Your task to perform on an android device: delete a single message in the gmail app Image 0: 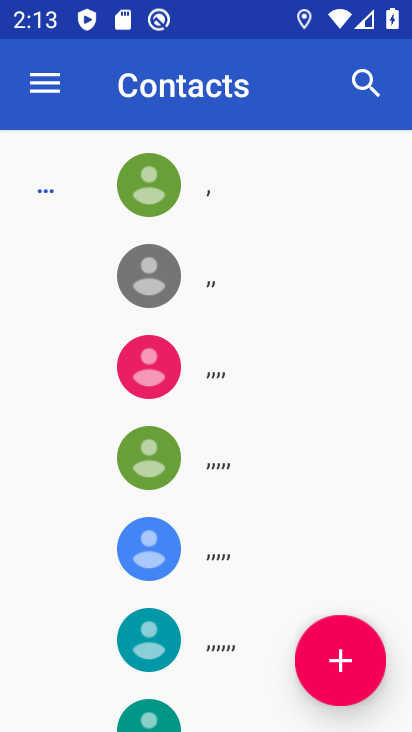
Step 0: press home button
Your task to perform on an android device: delete a single message in the gmail app Image 1: 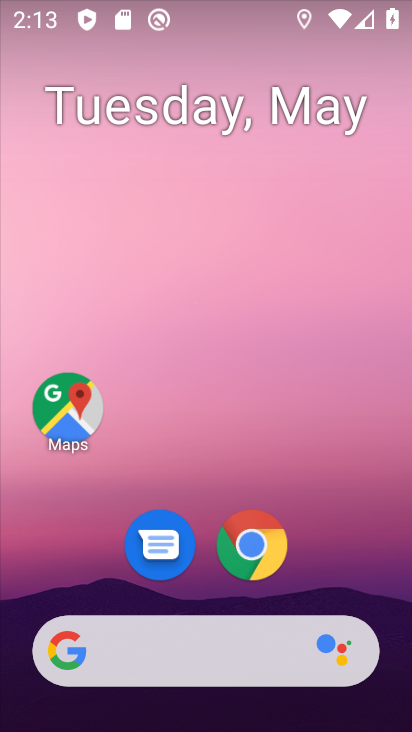
Step 1: drag from (205, 604) to (294, 77)
Your task to perform on an android device: delete a single message in the gmail app Image 2: 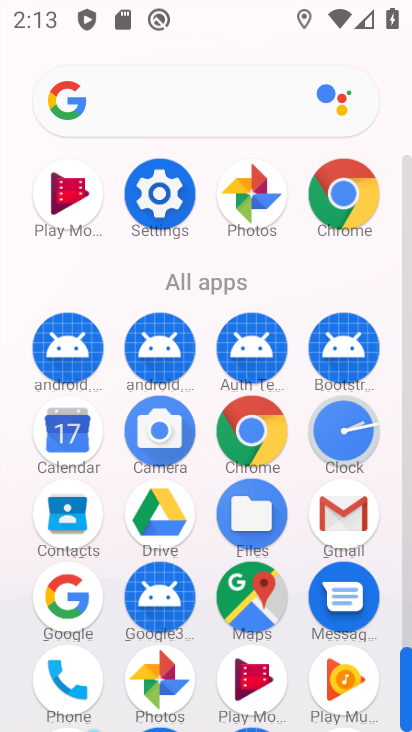
Step 2: click (335, 501)
Your task to perform on an android device: delete a single message in the gmail app Image 3: 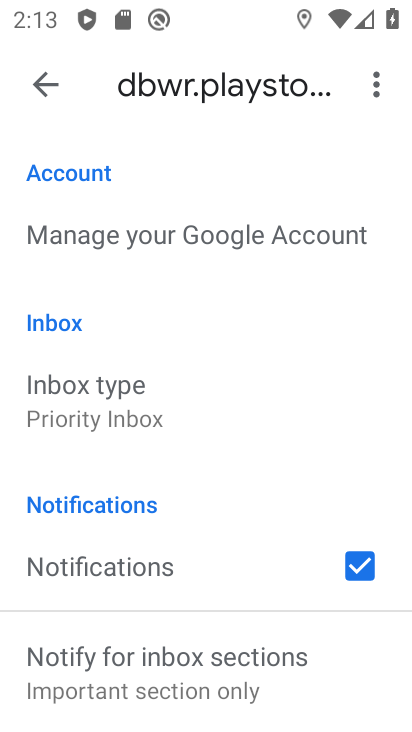
Step 3: click (41, 79)
Your task to perform on an android device: delete a single message in the gmail app Image 4: 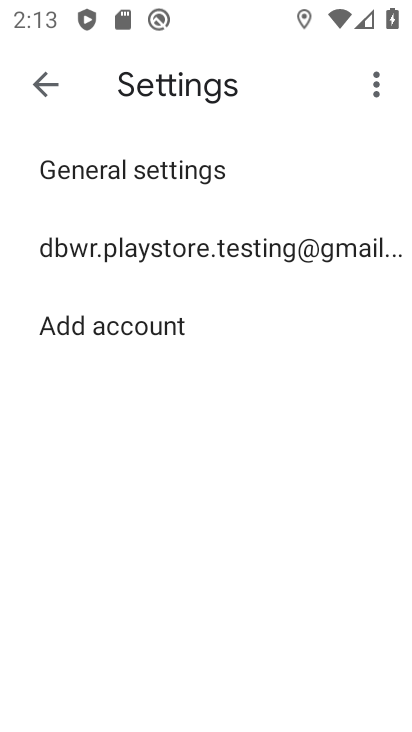
Step 4: click (41, 79)
Your task to perform on an android device: delete a single message in the gmail app Image 5: 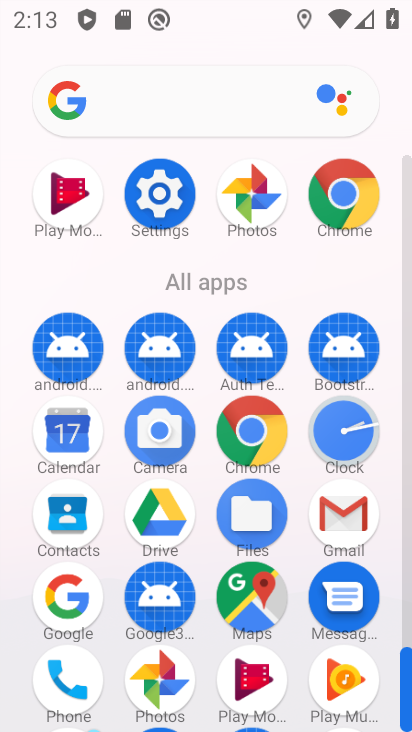
Step 5: click (341, 516)
Your task to perform on an android device: delete a single message in the gmail app Image 6: 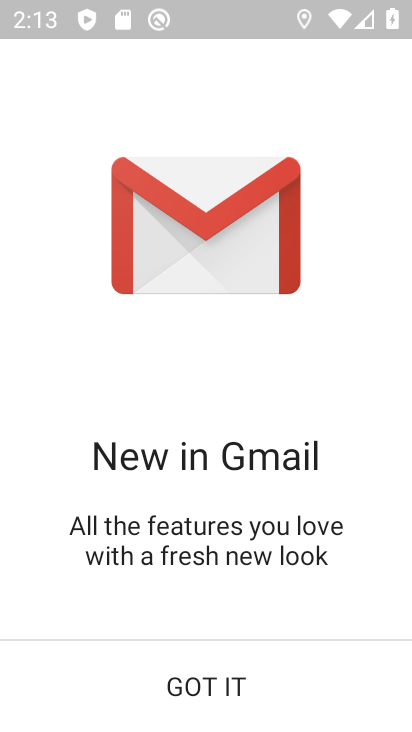
Step 6: click (221, 661)
Your task to perform on an android device: delete a single message in the gmail app Image 7: 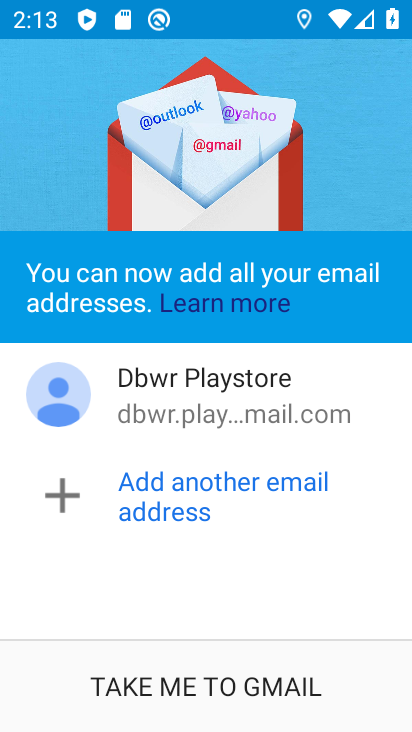
Step 7: click (221, 661)
Your task to perform on an android device: delete a single message in the gmail app Image 8: 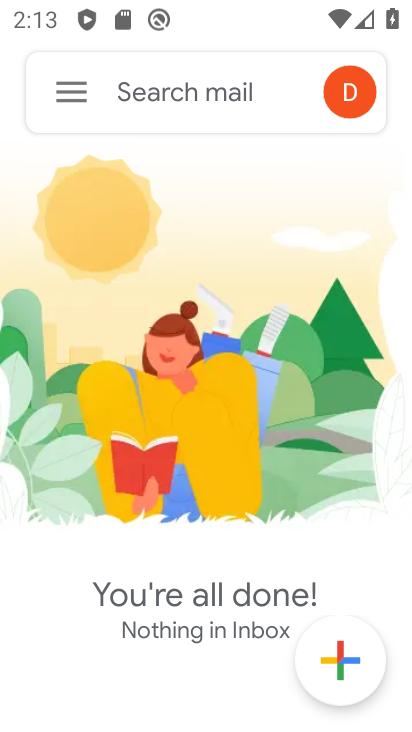
Step 8: task complete